Your task to perform on an android device: change the clock style Image 0: 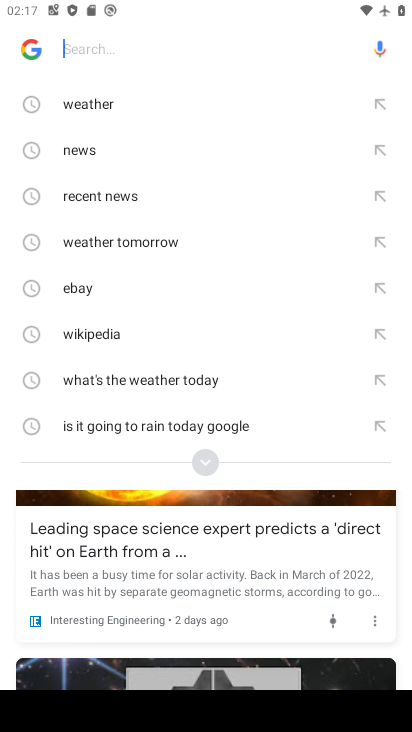
Step 0: press home button
Your task to perform on an android device: change the clock style Image 1: 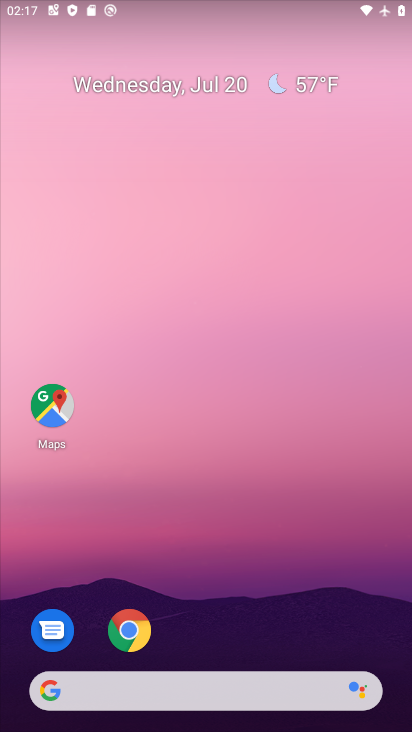
Step 1: drag from (292, 615) to (299, 101)
Your task to perform on an android device: change the clock style Image 2: 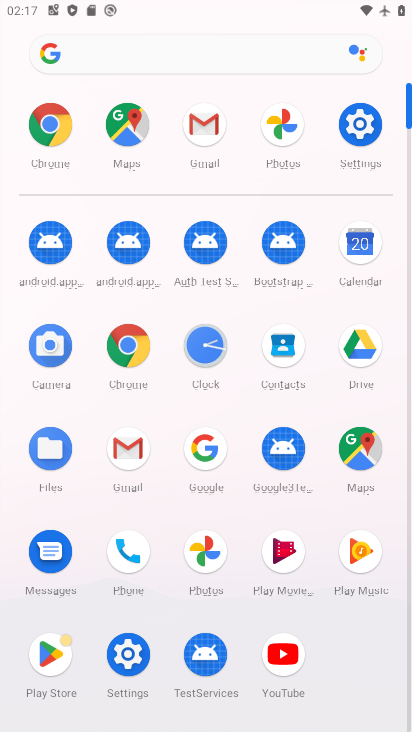
Step 2: click (219, 339)
Your task to perform on an android device: change the clock style Image 3: 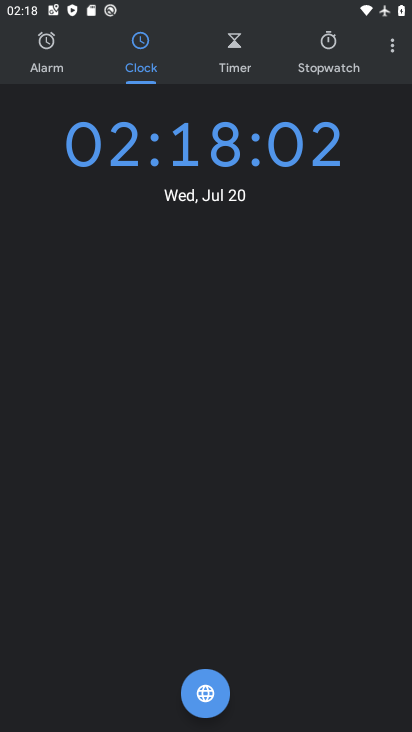
Step 3: click (395, 40)
Your task to perform on an android device: change the clock style Image 4: 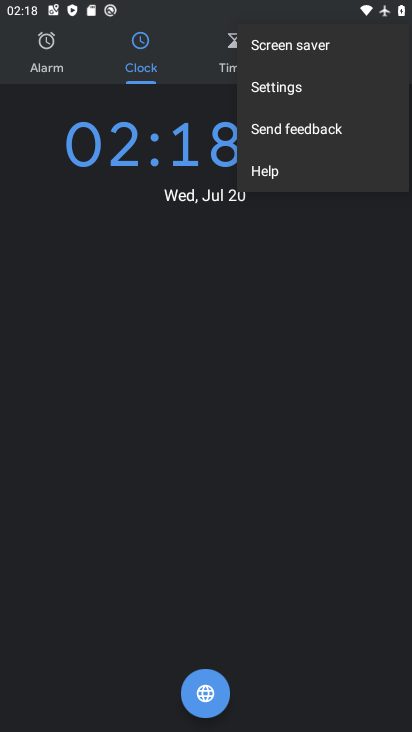
Step 4: click (283, 87)
Your task to perform on an android device: change the clock style Image 5: 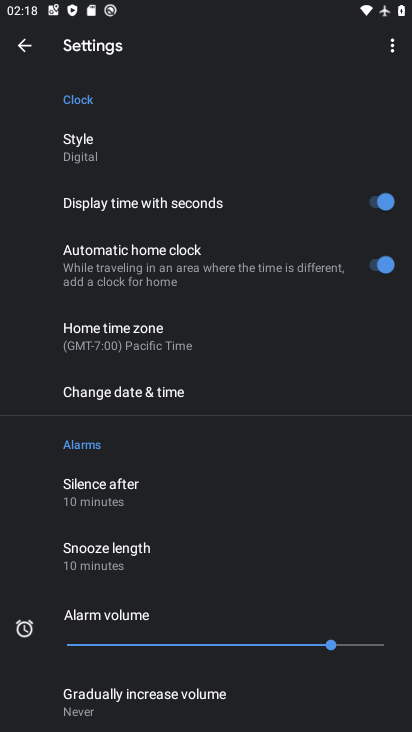
Step 5: click (90, 142)
Your task to perform on an android device: change the clock style Image 6: 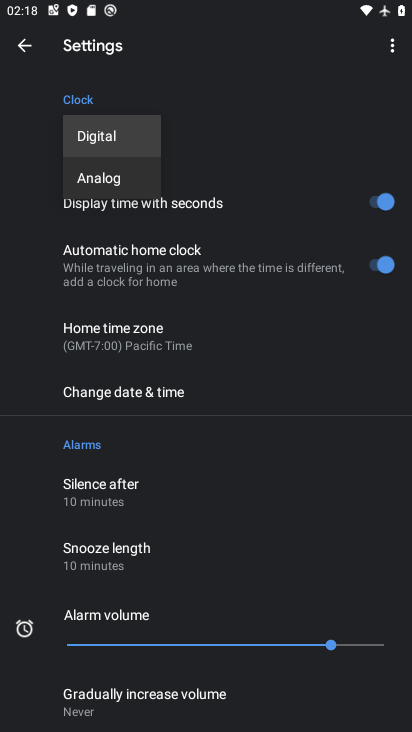
Step 6: click (111, 174)
Your task to perform on an android device: change the clock style Image 7: 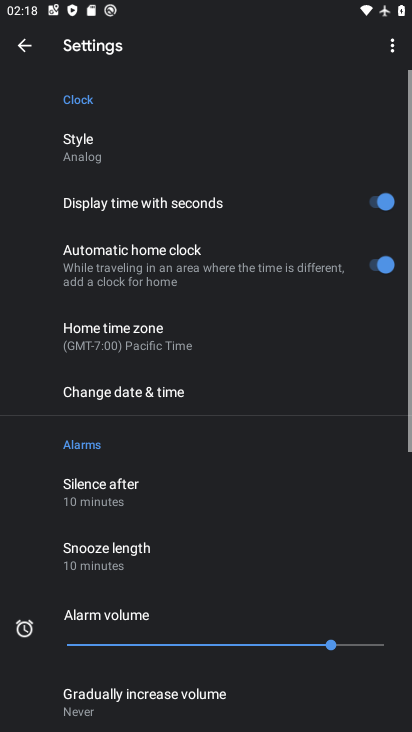
Step 7: task complete